Your task to perform on an android device: add a contact Image 0: 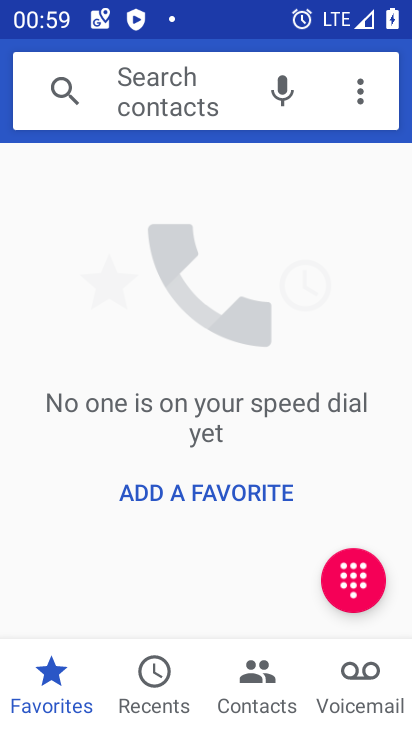
Step 0: press home button
Your task to perform on an android device: add a contact Image 1: 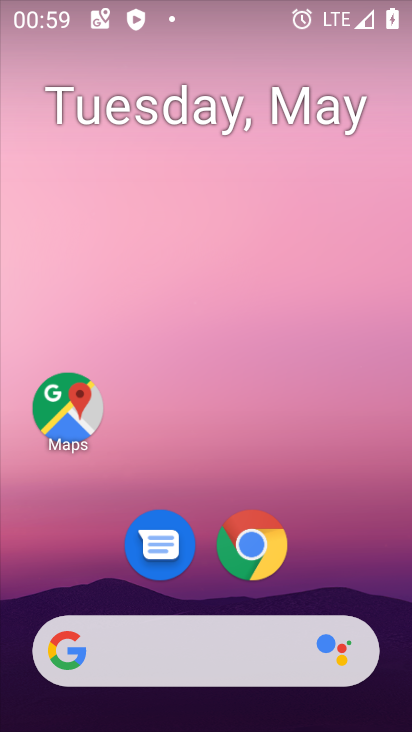
Step 1: drag from (309, 542) to (288, 85)
Your task to perform on an android device: add a contact Image 2: 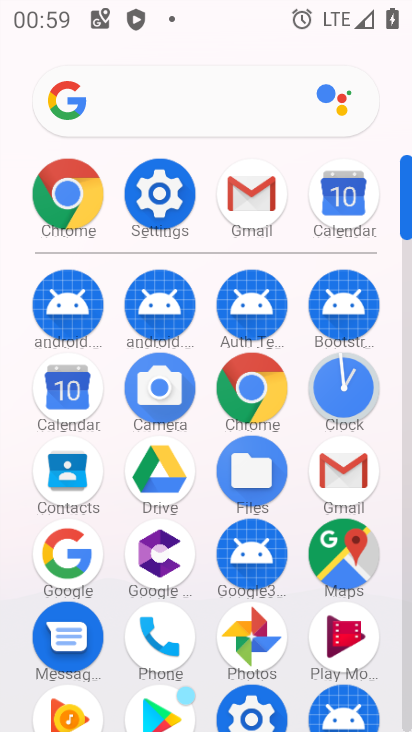
Step 2: click (79, 467)
Your task to perform on an android device: add a contact Image 3: 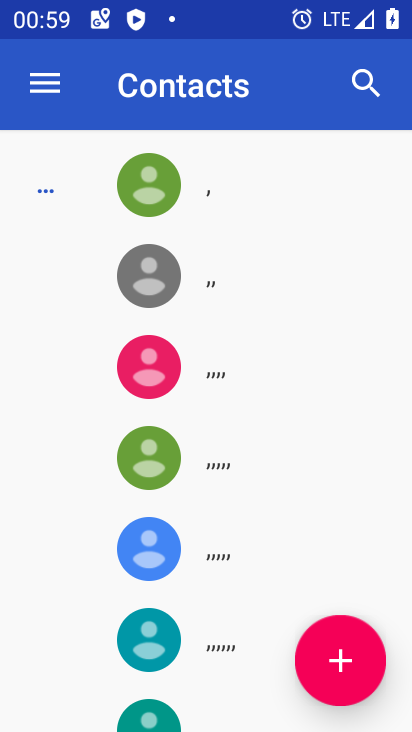
Step 3: click (338, 662)
Your task to perform on an android device: add a contact Image 4: 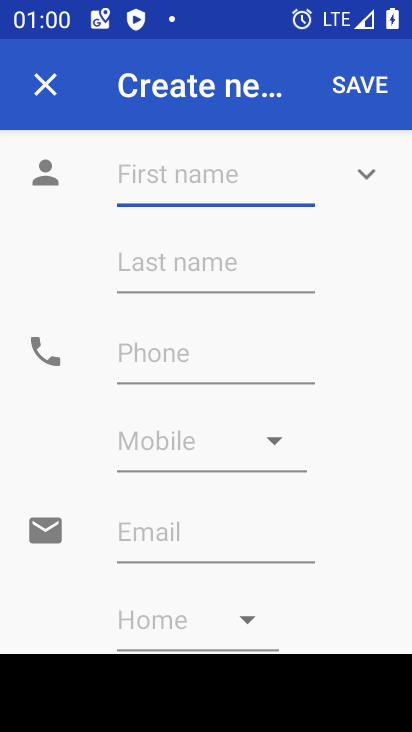
Step 4: type "gyjhvcfgujh"
Your task to perform on an android device: add a contact Image 5: 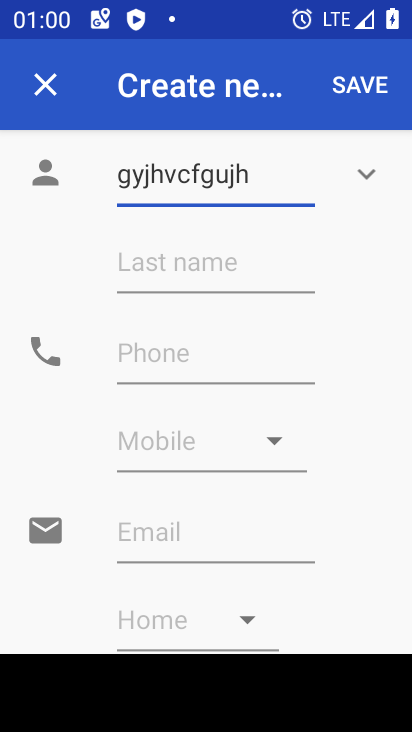
Step 5: click (198, 366)
Your task to perform on an android device: add a contact Image 6: 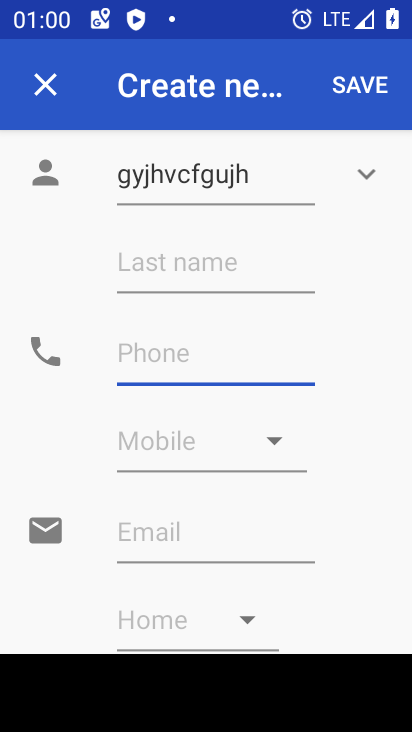
Step 6: type "6789098789"
Your task to perform on an android device: add a contact Image 7: 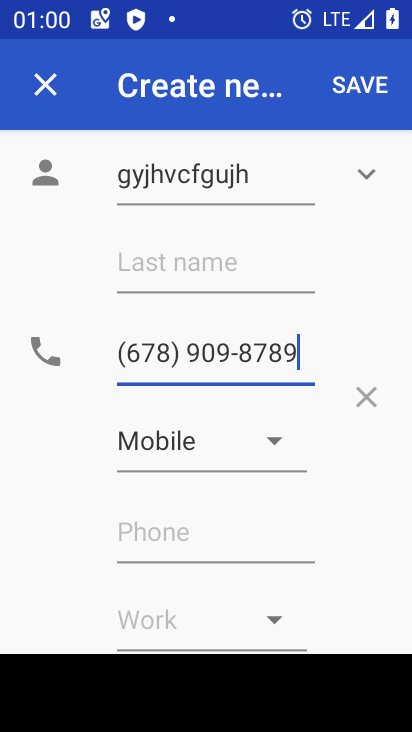
Step 7: click (336, 87)
Your task to perform on an android device: add a contact Image 8: 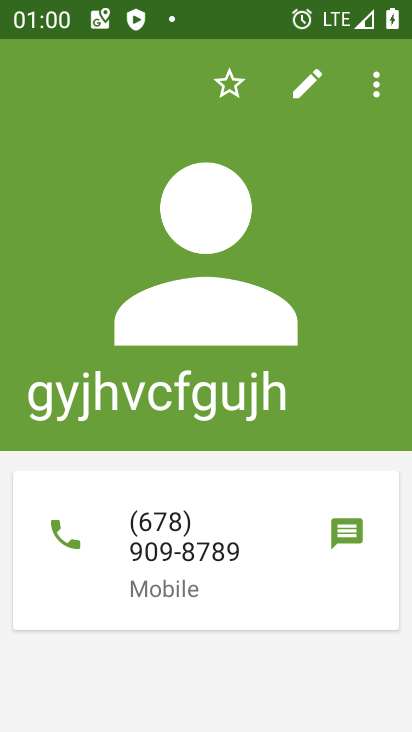
Step 8: task complete